Your task to perform on an android device: Go to notification settings Image 0: 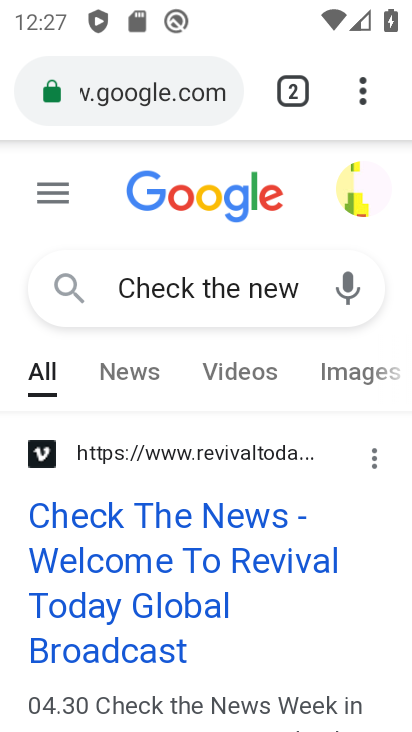
Step 0: press home button
Your task to perform on an android device: Go to notification settings Image 1: 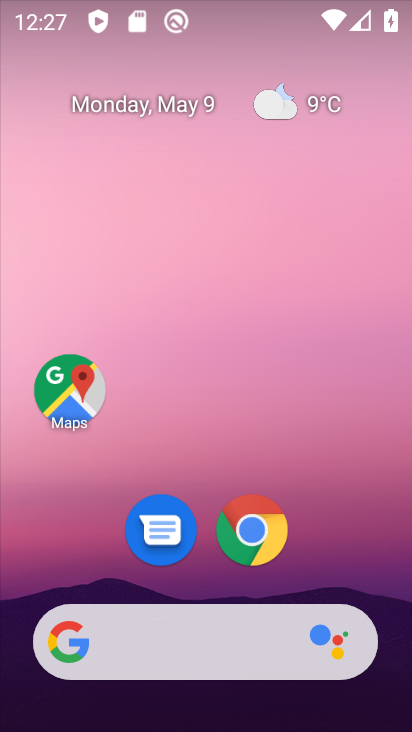
Step 1: drag from (342, 470) to (385, 260)
Your task to perform on an android device: Go to notification settings Image 2: 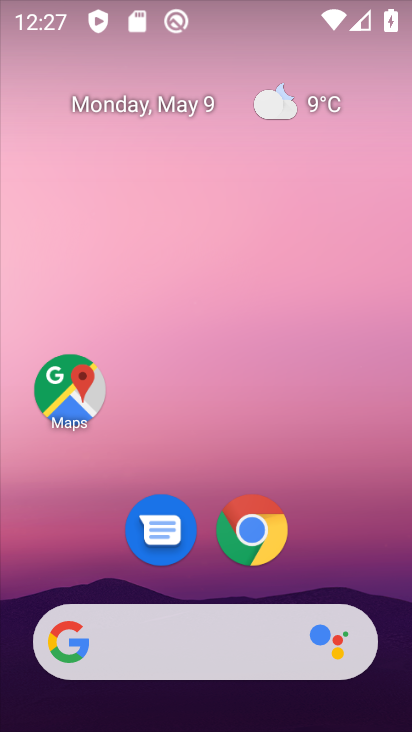
Step 2: drag from (315, 572) to (370, 214)
Your task to perform on an android device: Go to notification settings Image 3: 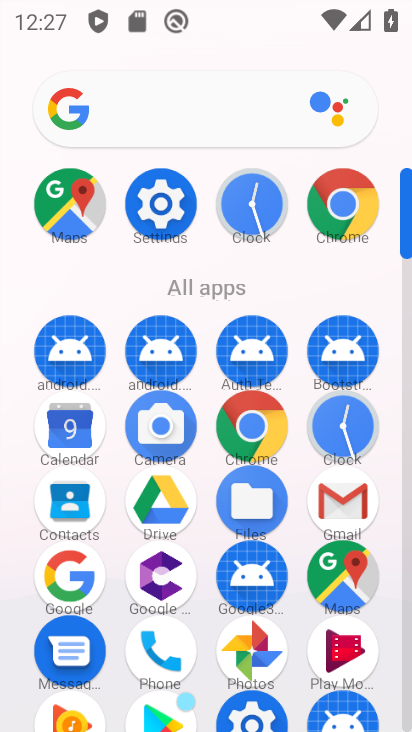
Step 3: click (157, 186)
Your task to perform on an android device: Go to notification settings Image 4: 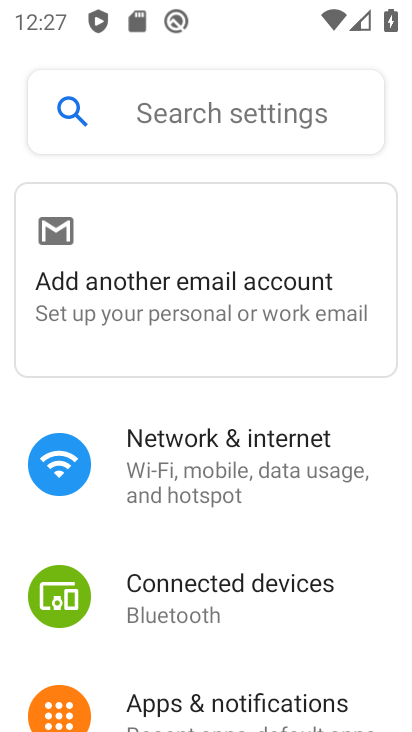
Step 4: drag from (253, 516) to (269, 357)
Your task to perform on an android device: Go to notification settings Image 5: 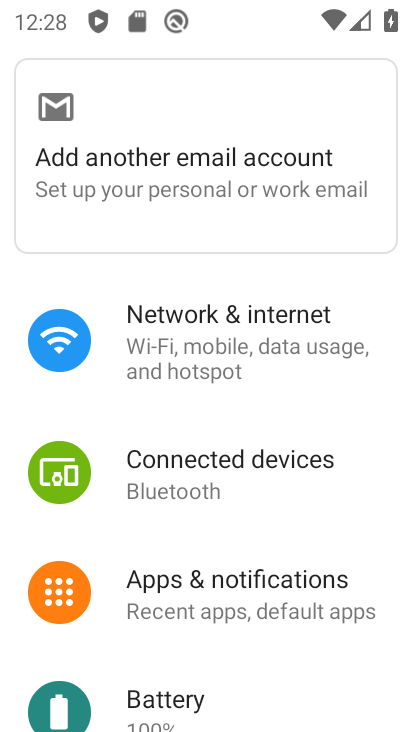
Step 5: drag from (230, 663) to (296, 325)
Your task to perform on an android device: Go to notification settings Image 6: 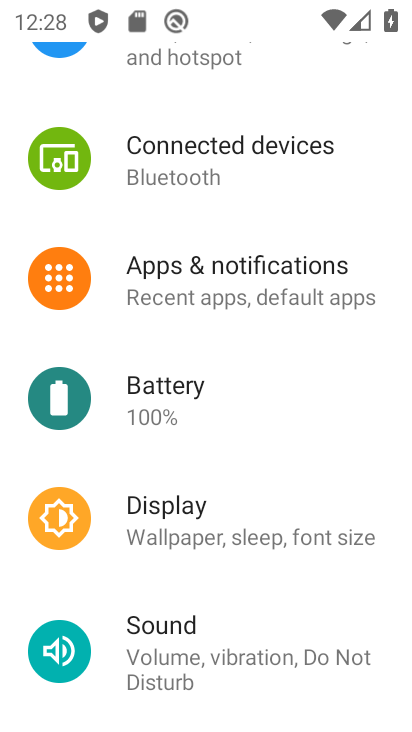
Step 6: drag from (289, 221) to (290, 426)
Your task to perform on an android device: Go to notification settings Image 7: 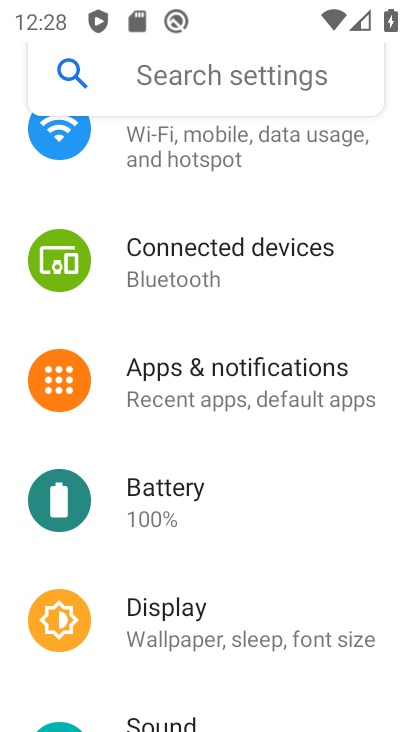
Step 7: click (256, 386)
Your task to perform on an android device: Go to notification settings Image 8: 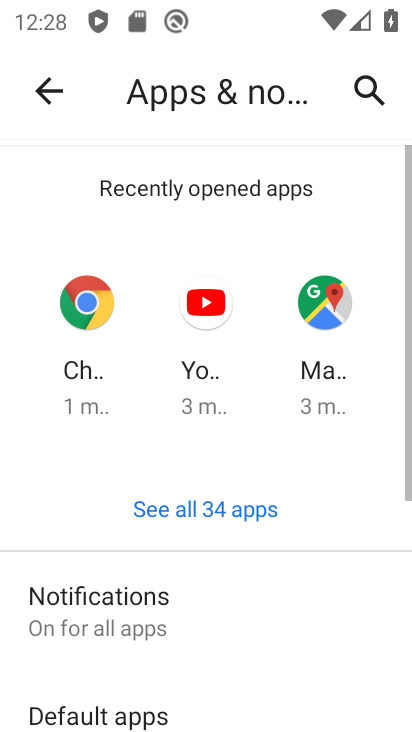
Step 8: click (117, 603)
Your task to perform on an android device: Go to notification settings Image 9: 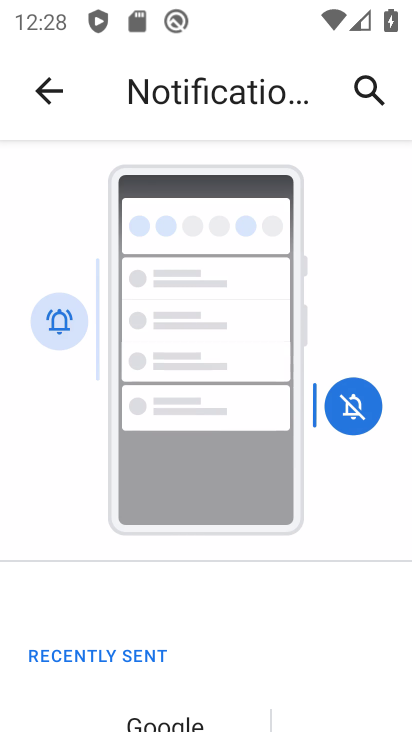
Step 9: task complete